Your task to perform on an android device: Search for usb-c to usb-a on ebay.com, select the first entry, add it to the cart, then select checkout. Image 0: 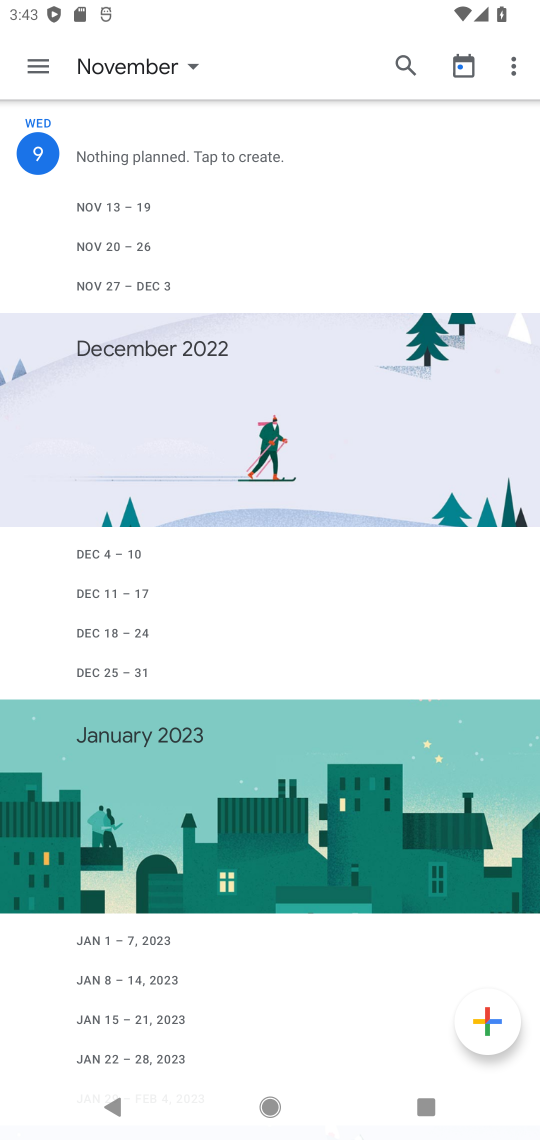
Step 0: press home button
Your task to perform on an android device: Search for usb-c to usb-a on ebay.com, select the first entry, add it to the cart, then select checkout. Image 1: 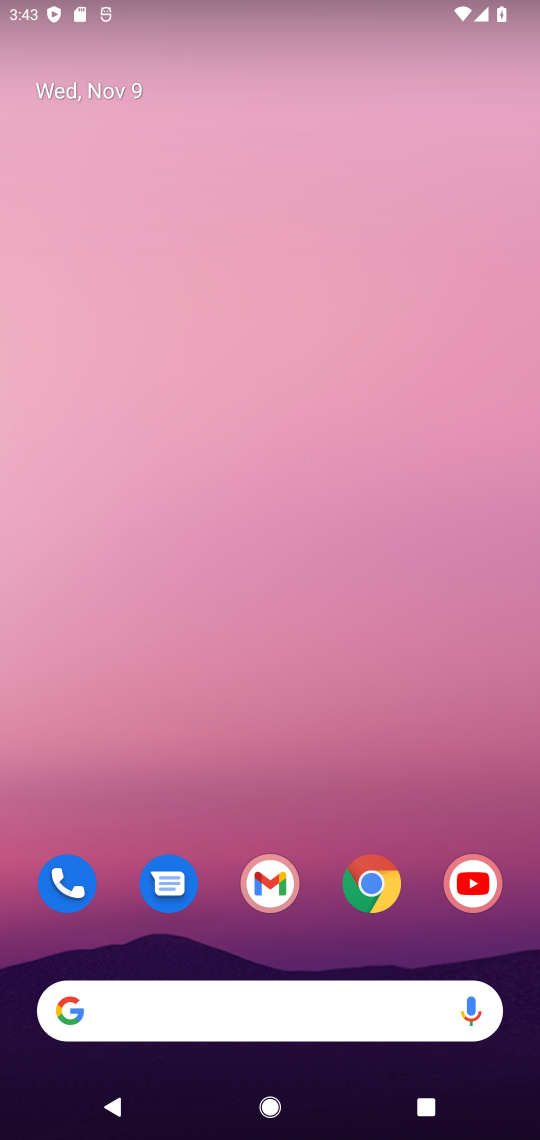
Step 1: click (381, 884)
Your task to perform on an android device: Search for usb-c to usb-a on ebay.com, select the first entry, add it to the cart, then select checkout. Image 2: 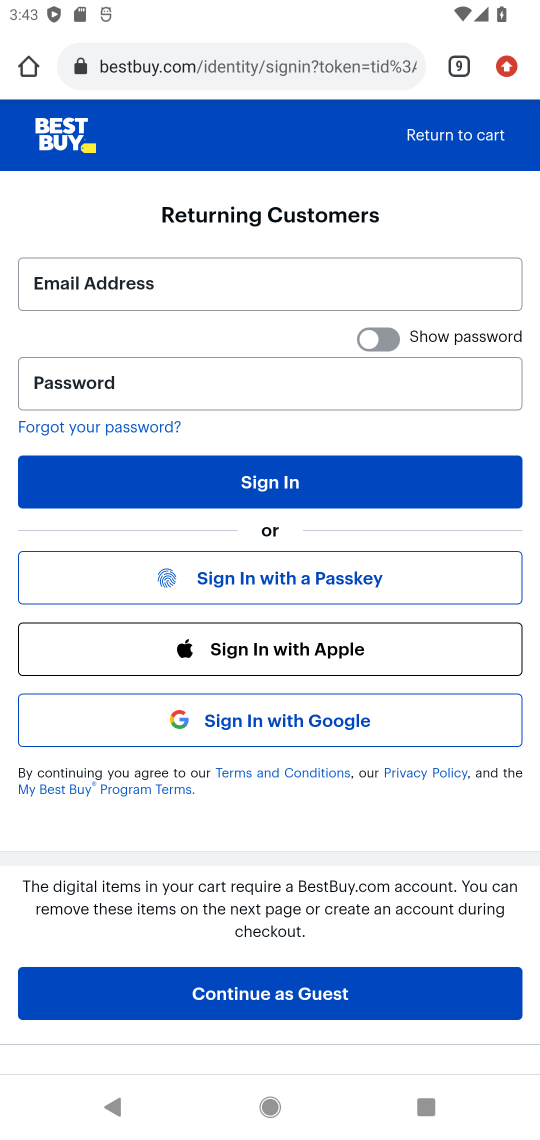
Step 2: click (457, 60)
Your task to perform on an android device: Search for usb-c to usb-a on ebay.com, select the first entry, add it to the cart, then select checkout. Image 3: 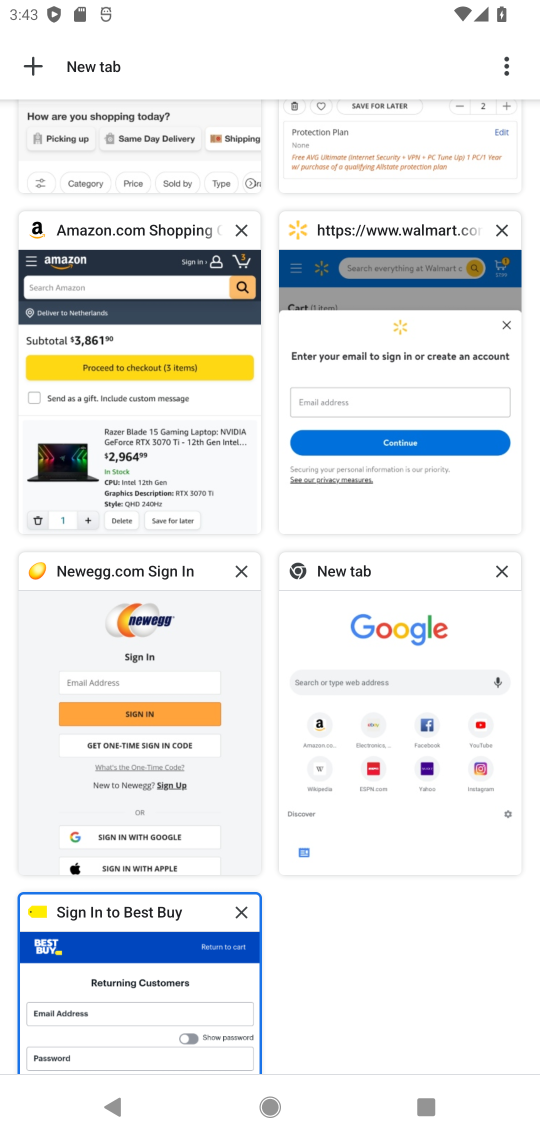
Step 3: click (501, 572)
Your task to perform on an android device: Search for usb-c to usb-a on ebay.com, select the first entry, add it to the cart, then select checkout. Image 4: 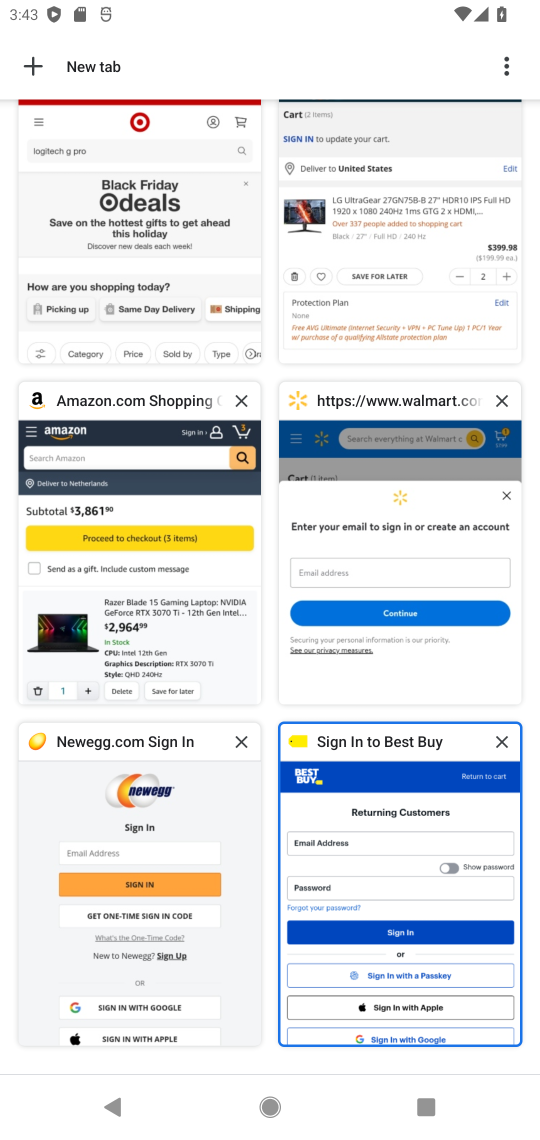
Step 4: drag from (384, 315) to (294, 924)
Your task to perform on an android device: Search for usb-c to usb-a on ebay.com, select the first entry, add it to the cart, then select checkout. Image 5: 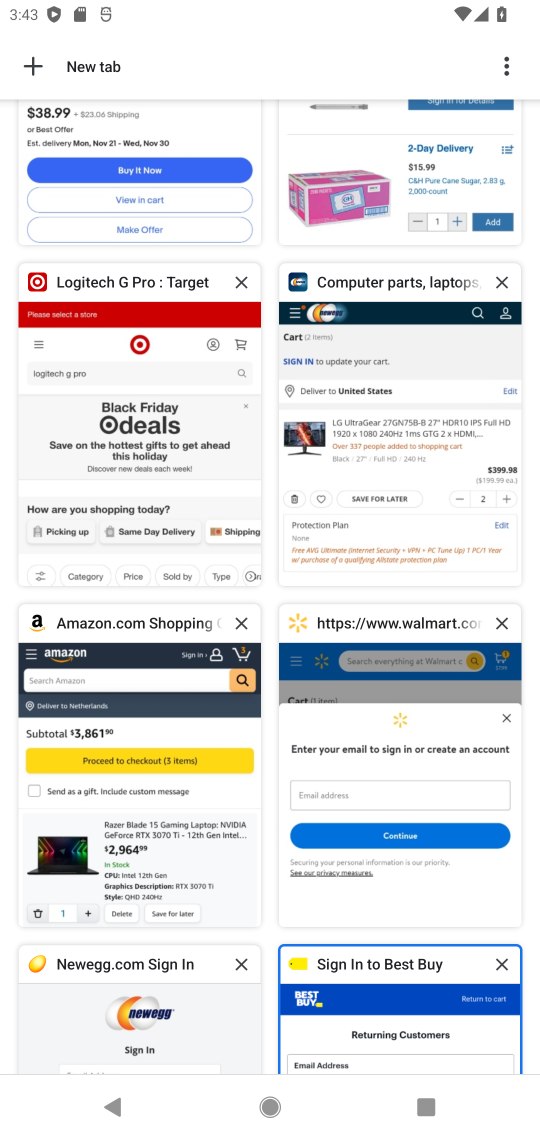
Step 5: click (186, 133)
Your task to perform on an android device: Search for usb-c to usb-a on ebay.com, select the first entry, add it to the cart, then select checkout. Image 6: 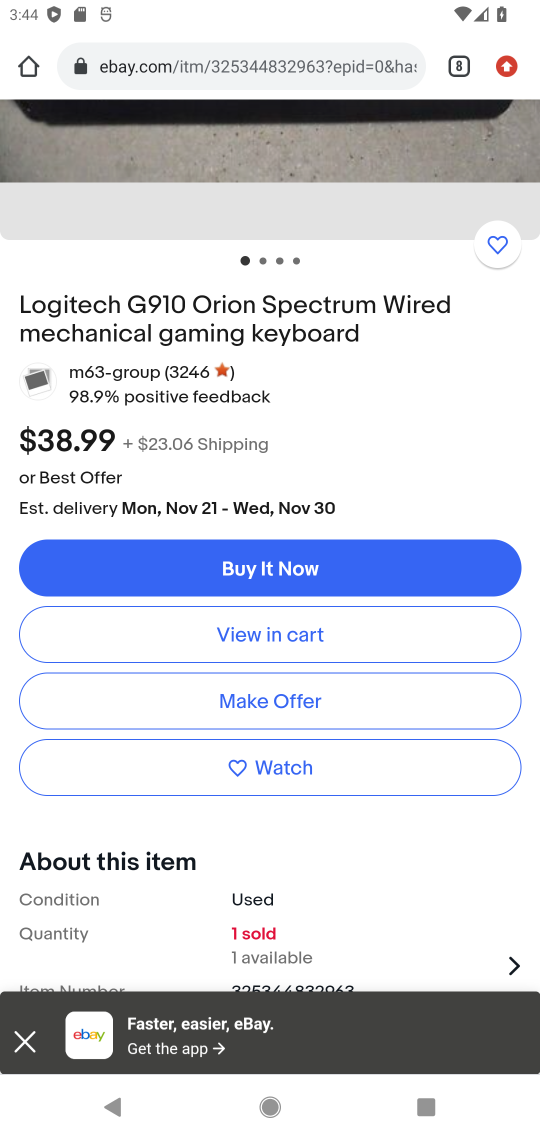
Step 6: drag from (412, 386) to (318, 1045)
Your task to perform on an android device: Search for usb-c to usb-a on ebay.com, select the first entry, add it to the cart, then select checkout. Image 7: 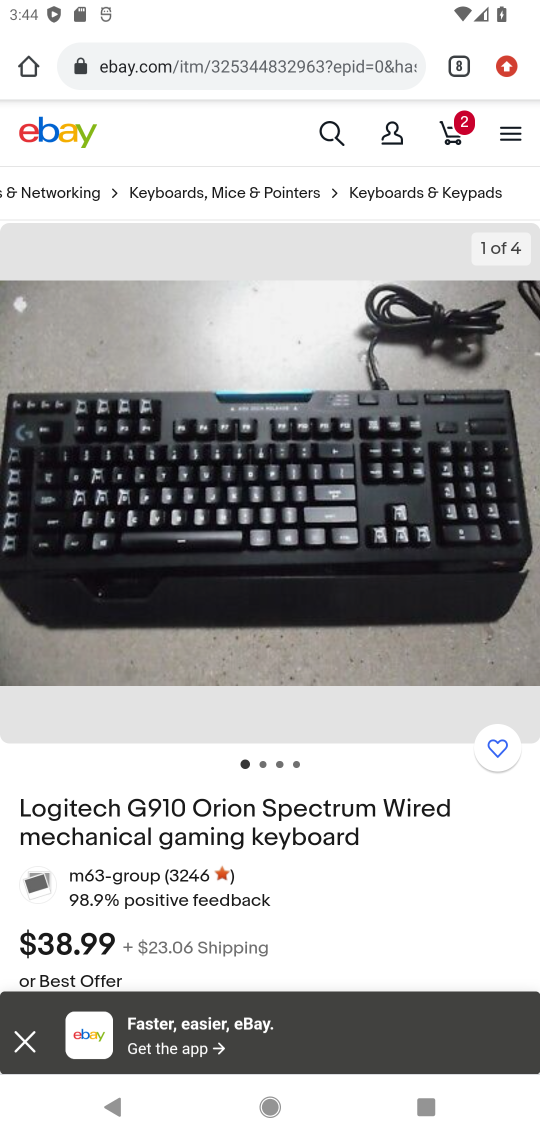
Step 7: click (327, 130)
Your task to perform on an android device: Search for usb-c to usb-a on ebay.com, select the first entry, add it to the cart, then select checkout. Image 8: 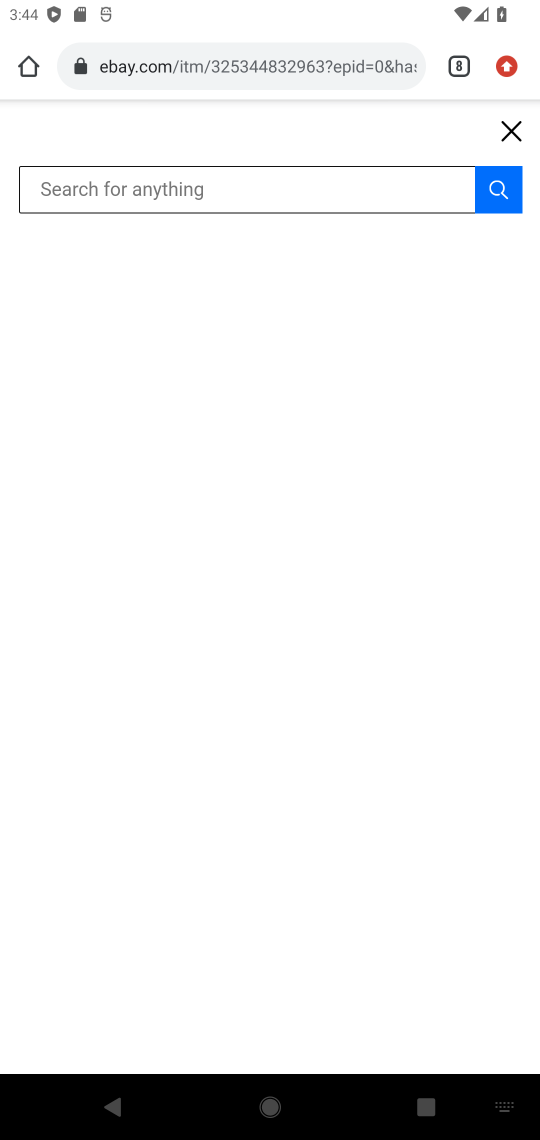
Step 8: type "usb-c to usb-a"
Your task to perform on an android device: Search for usb-c to usb-a on ebay.com, select the first entry, add it to the cart, then select checkout. Image 9: 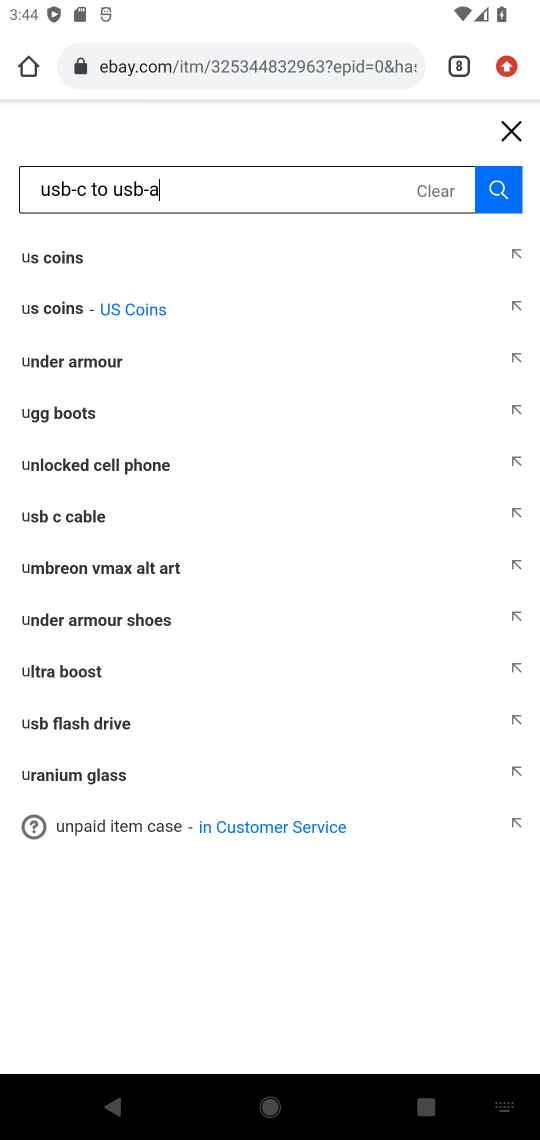
Step 9: click (494, 194)
Your task to perform on an android device: Search for usb-c to usb-a on ebay.com, select the first entry, add it to the cart, then select checkout. Image 10: 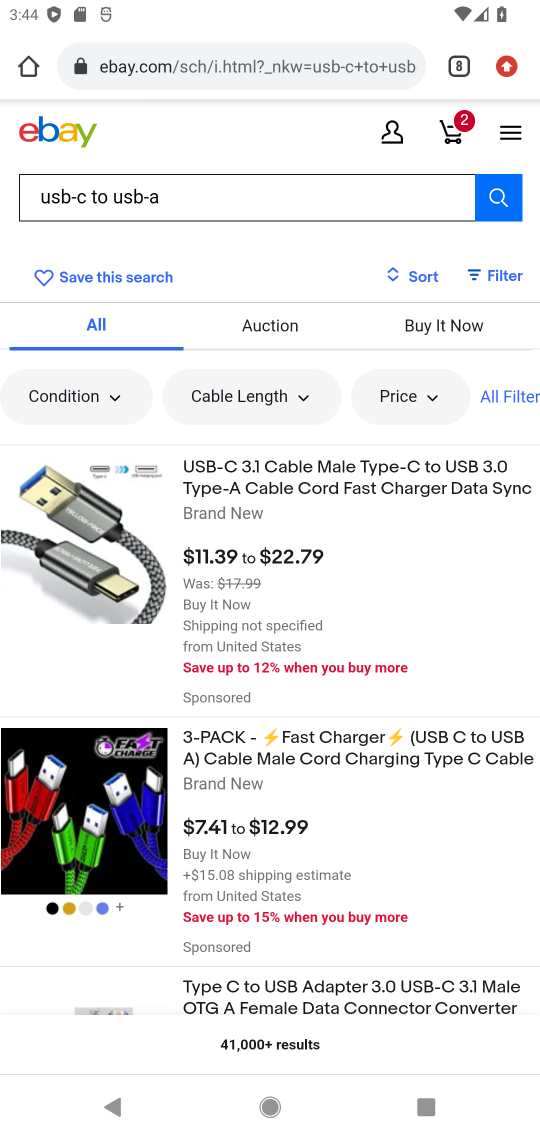
Step 10: click (229, 478)
Your task to perform on an android device: Search for usb-c to usb-a on ebay.com, select the first entry, add it to the cart, then select checkout. Image 11: 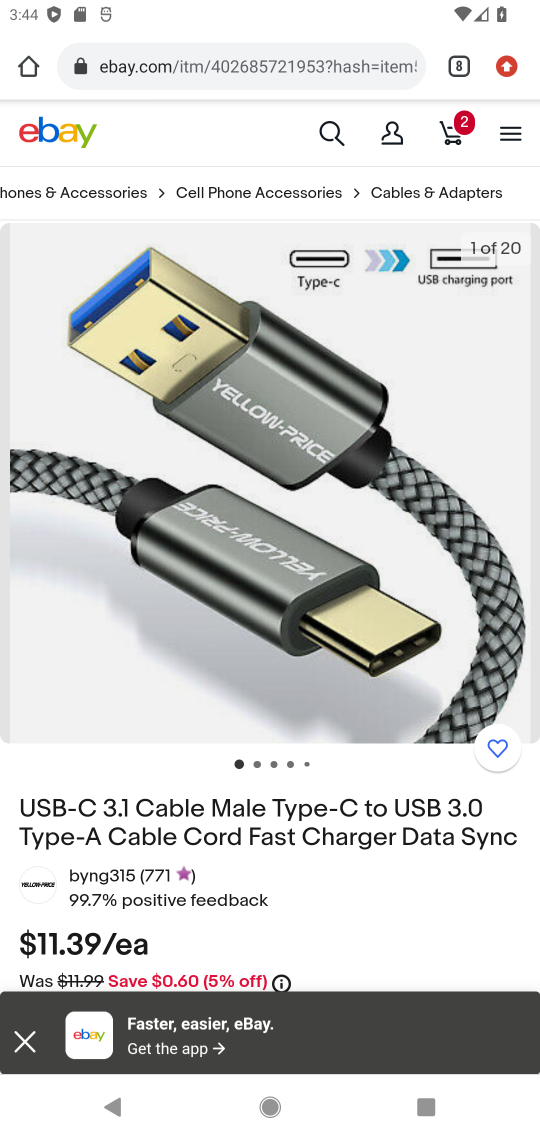
Step 11: click (25, 1037)
Your task to perform on an android device: Search for usb-c to usb-a on ebay.com, select the first entry, add it to the cart, then select checkout. Image 12: 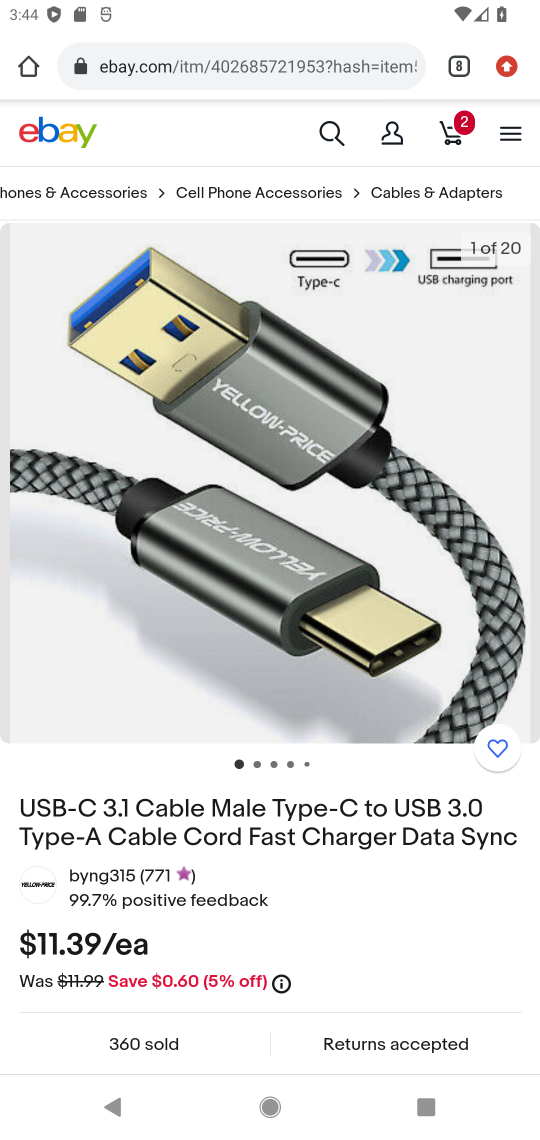
Step 12: drag from (415, 921) to (510, 376)
Your task to perform on an android device: Search for usb-c to usb-a on ebay.com, select the first entry, add it to the cart, then select checkout. Image 13: 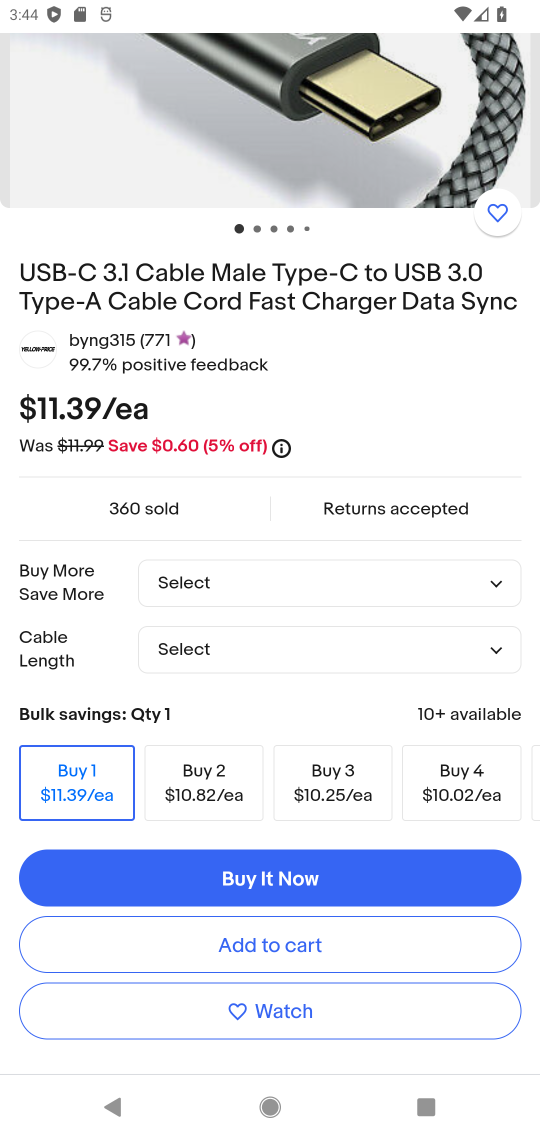
Step 13: click (272, 952)
Your task to perform on an android device: Search for usb-c to usb-a on ebay.com, select the first entry, add it to the cart, then select checkout. Image 14: 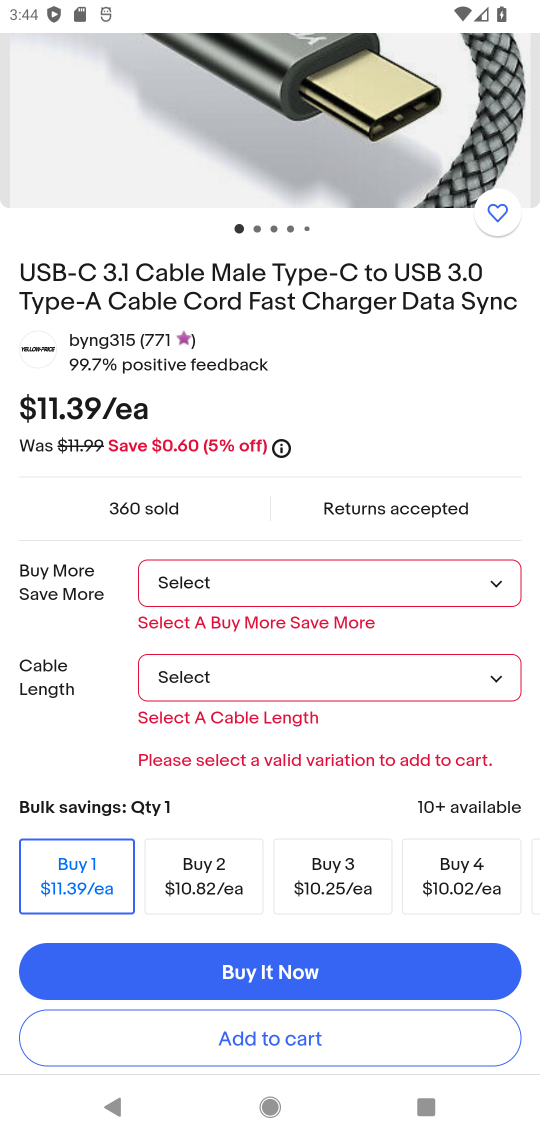
Step 14: click (496, 572)
Your task to perform on an android device: Search for usb-c to usb-a on ebay.com, select the first entry, add it to the cart, then select checkout. Image 15: 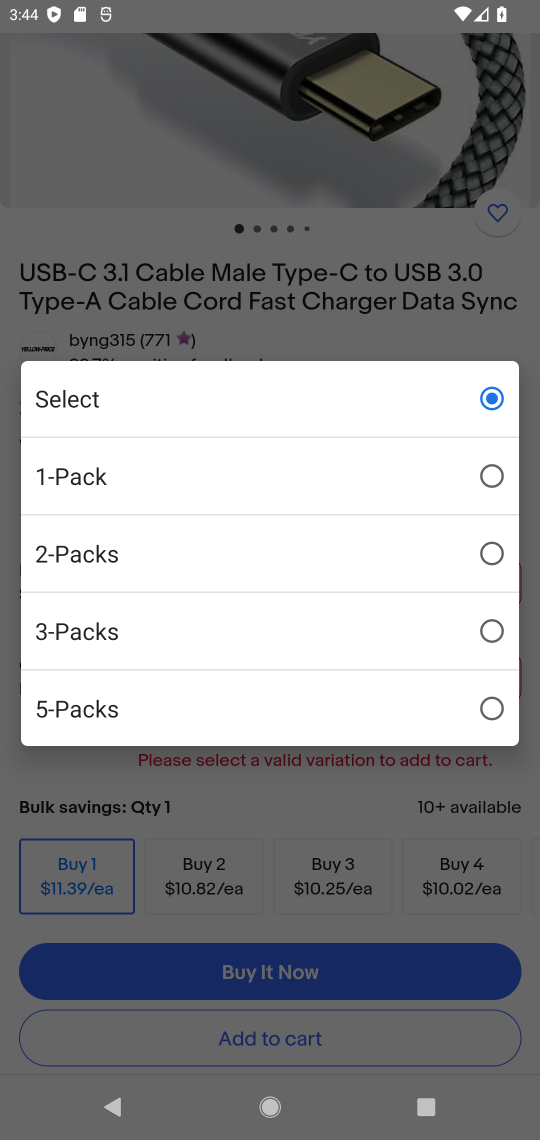
Step 15: click (499, 580)
Your task to perform on an android device: Search for usb-c to usb-a on ebay.com, select the first entry, add it to the cart, then select checkout. Image 16: 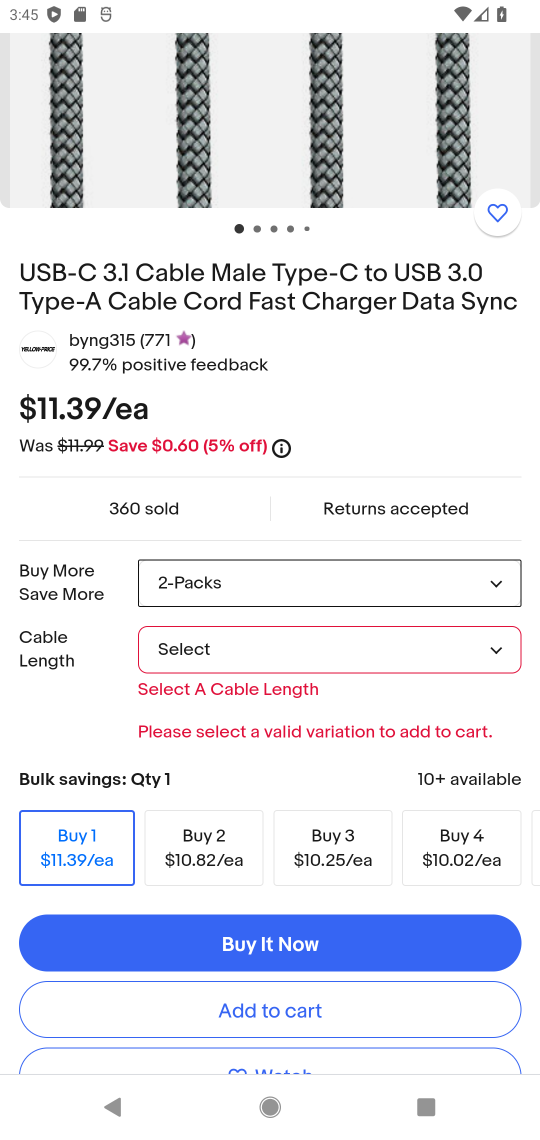
Step 16: click (489, 576)
Your task to perform on an android device: Search for usb-c to usb-a on ebay.com, select the first entry, add it to the cart, then select checkout. Image 17: 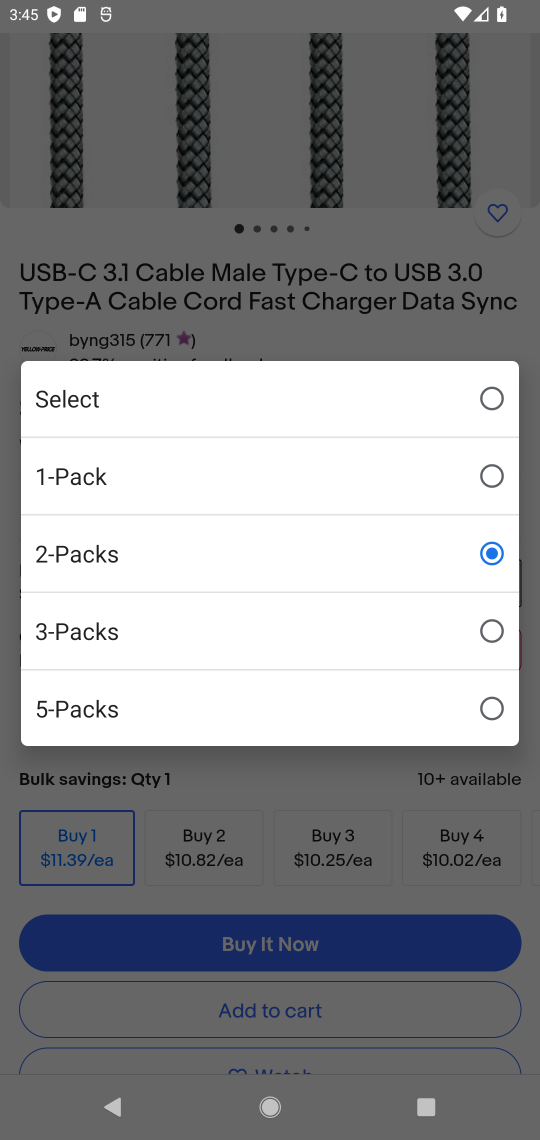
Step 17: click (495, 641)
Your task to perform on an android device: Search for usb-c to usb-a on ebay.com, select the first entry, add it to the cart, then select checkout. Image 18: 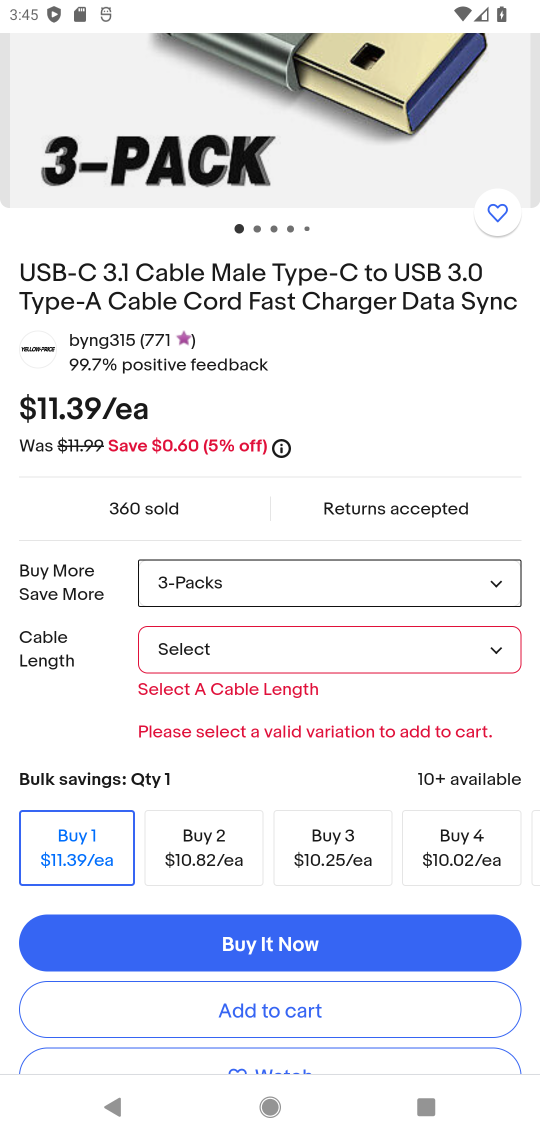
Step 18: click (492, 649)
Your task to perform on an android device: Search for usb-c to usb-a on ebay.com, select the first entry, add it to the cart, then select checkout. Image 19: 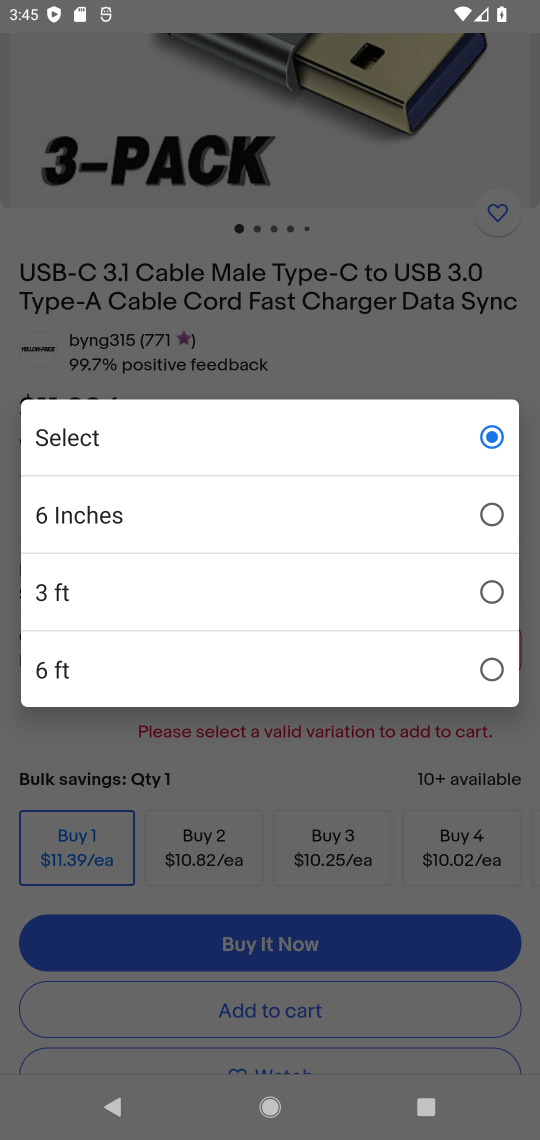
Step 19: click (490, 596)
Your task to perform on an android device: Search for usb-c to usb-a on ebay.com, select the first entry, add it to the cart, then select checkout. Image 20: 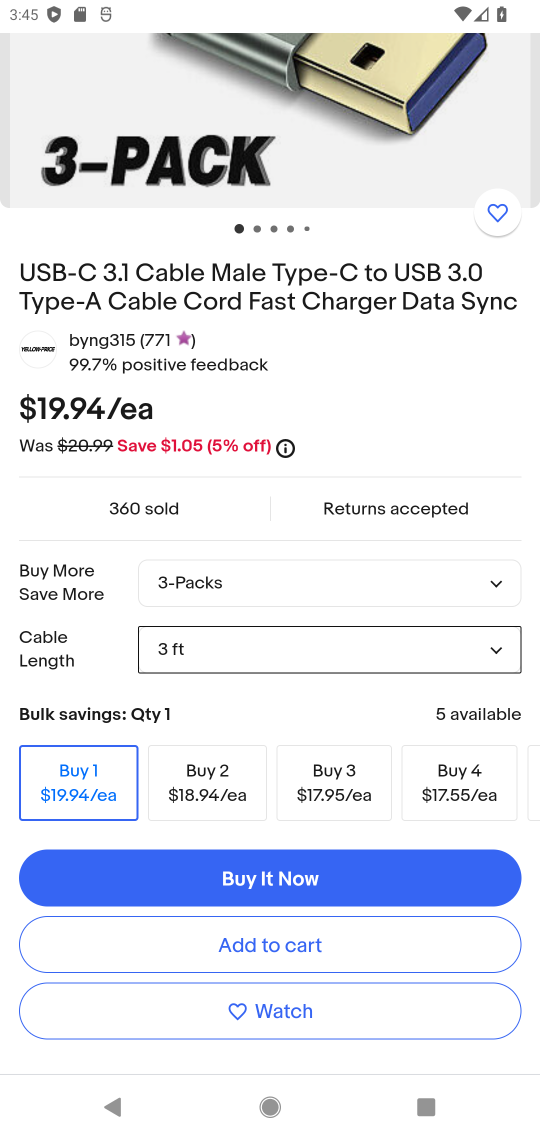
Step 20: click (291, 939)
Your task to perform on an android device: Search for usb-c to usb-a on ebay.com, select the first entry, add it to the cart, then select checkout. Image 21: 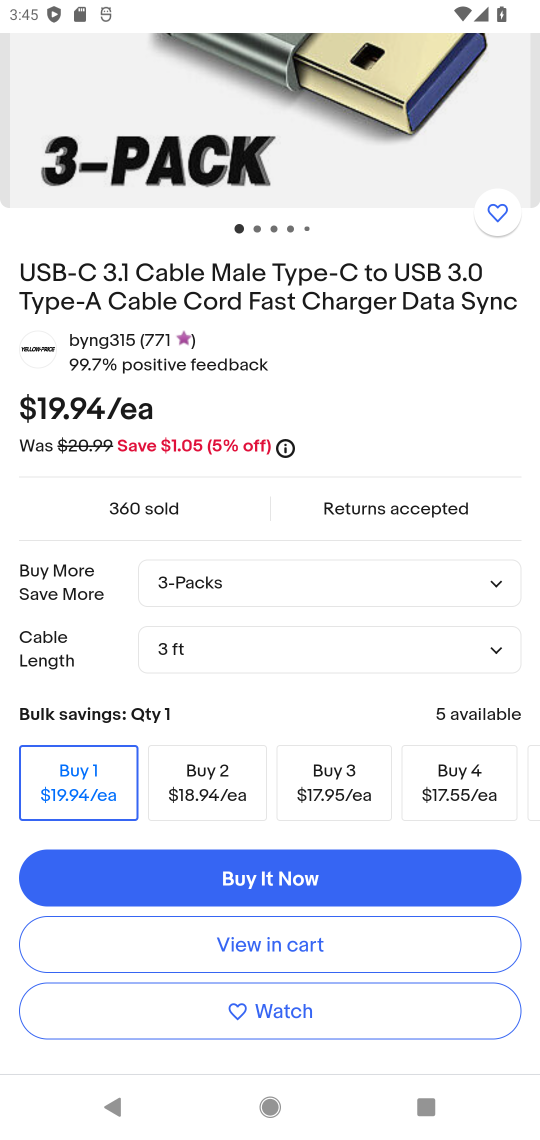
Step 21: click (290, 940)
Your task to perform on an android device: Search for usb-c to usb-a on ebay.com, select the first entry, add it to the cart, then select checkout. Image 22: 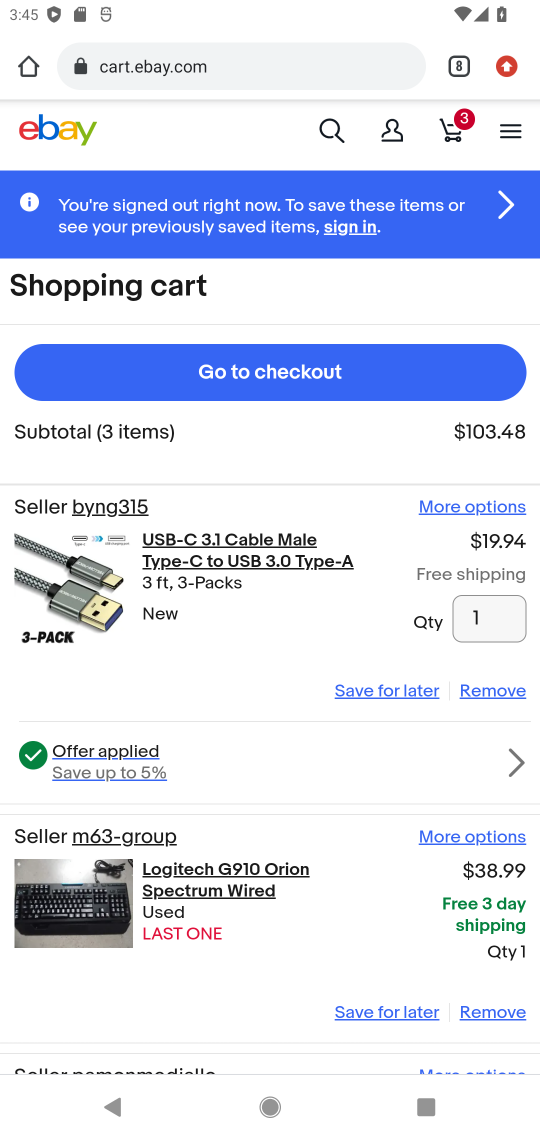
Step 22: click (317, 366)
Your task to perform on an android device: Search for usb-c to usb-a on ebay.com, select the first entry, add it to the cart, then select checkout. Image 23: 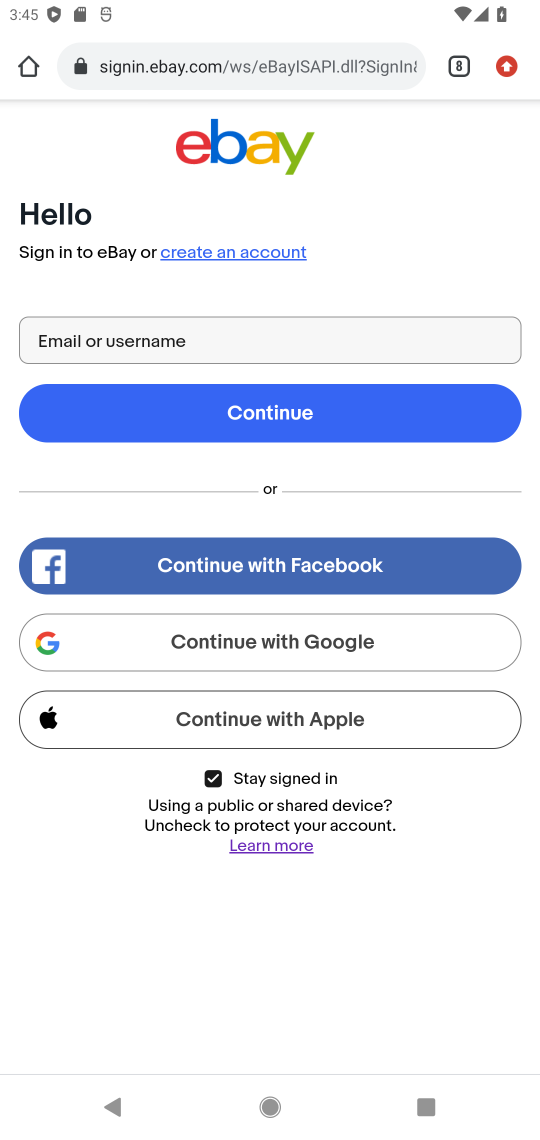
Step 23: task complete